Your task to perform on an android device: toggle improve location accuracy Image 0: 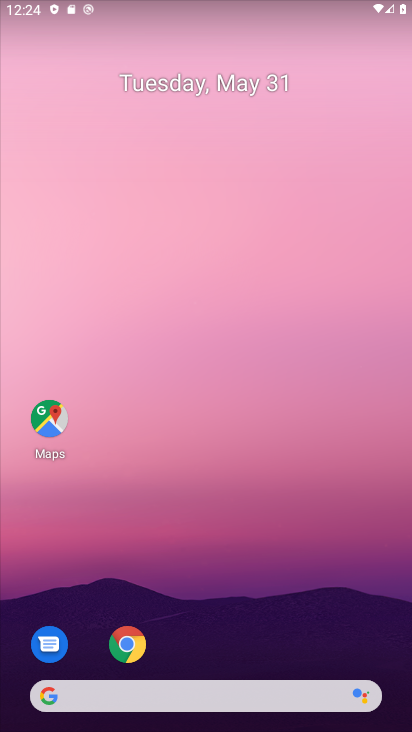
Step 0: press home button
Your task to perform on an android device: toggle improve location accuracy Image 1: 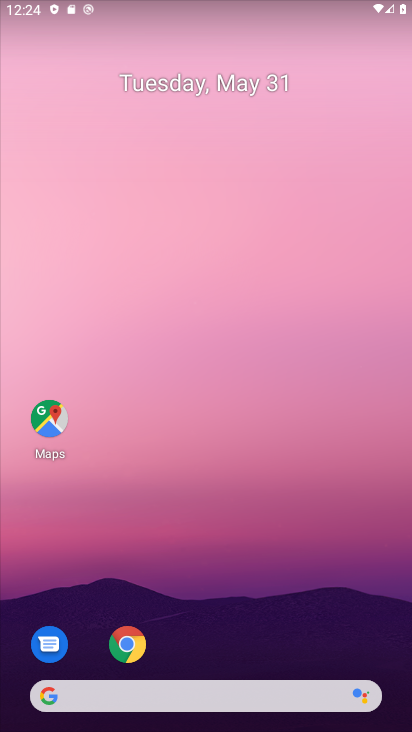
Step 1: drag from (226, 654) to (346, 182)
Your task to perform on an android device: toggle improve location accuracy Image 2: 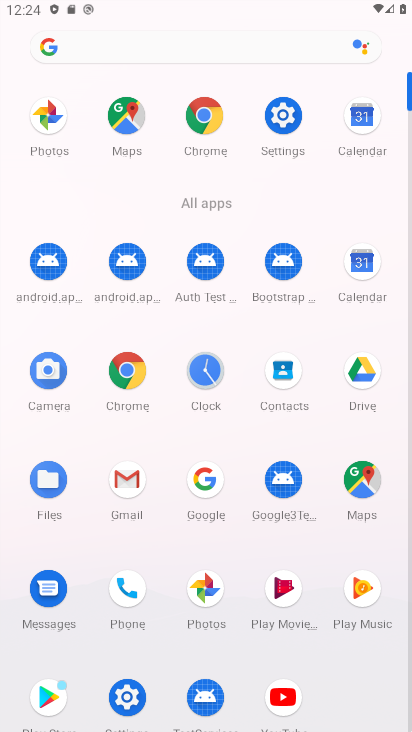
Step 2: click (297, 122)
Your task to perform on an android device: toggle improve location accuracy Image 3: 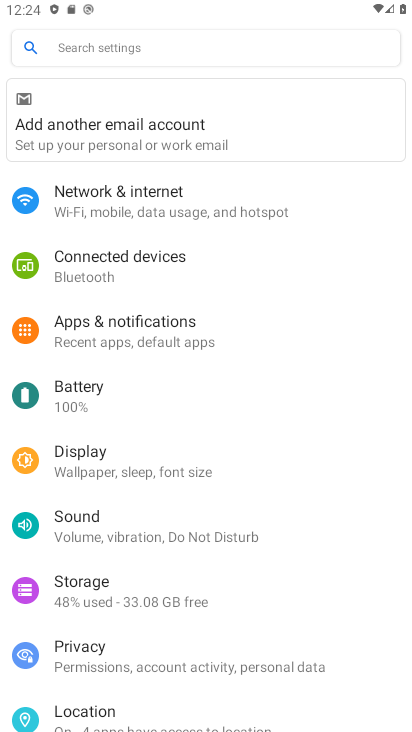
Step 3: click (75, 709)
Your task to perform on an android device: toggle improve location accuracy Image 4: 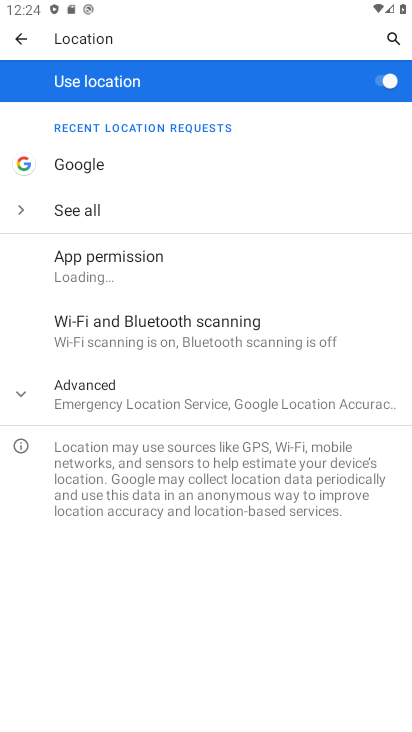
Step 4: click (103, 403)
Your task to perform on an android device: toggle improve location accuracy Image 5: 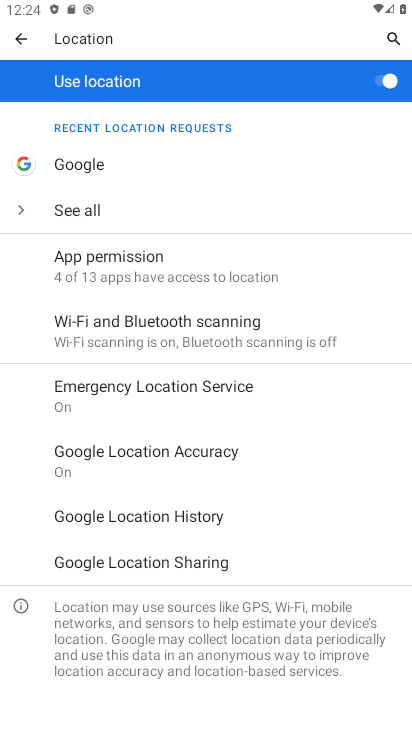
Step 5: click (156, 450)
Your task to perform on an android device: toggle improve location accuracy Image 6: 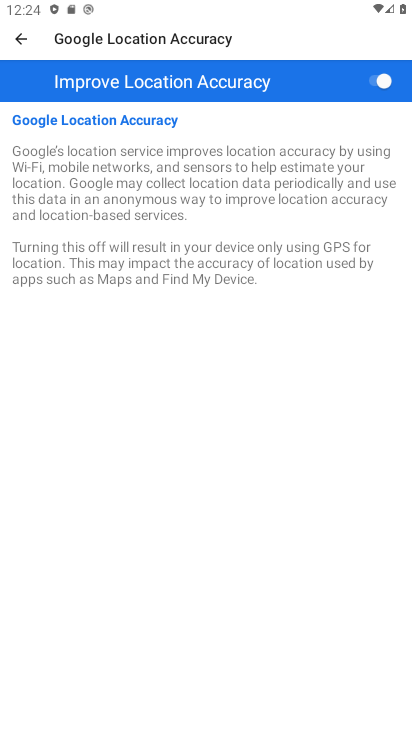
Step 6: click (390, 82)
Your task to perform on an android device: toggle improve location accuracy Image 7: 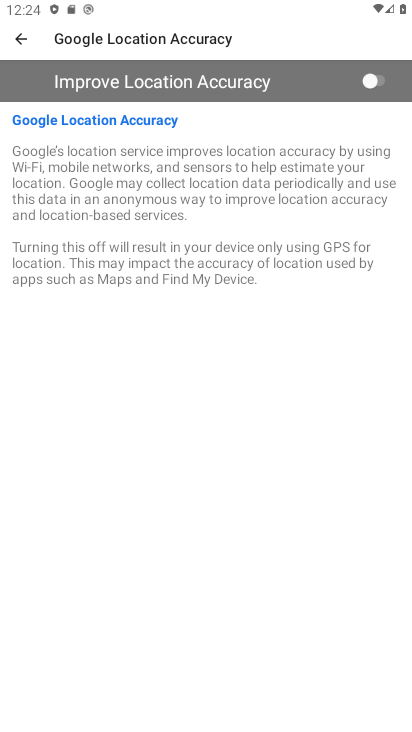
Step 7: task complete